Your task to perform on an android device: open the mobile data screen to see how much data has been used Image 0: 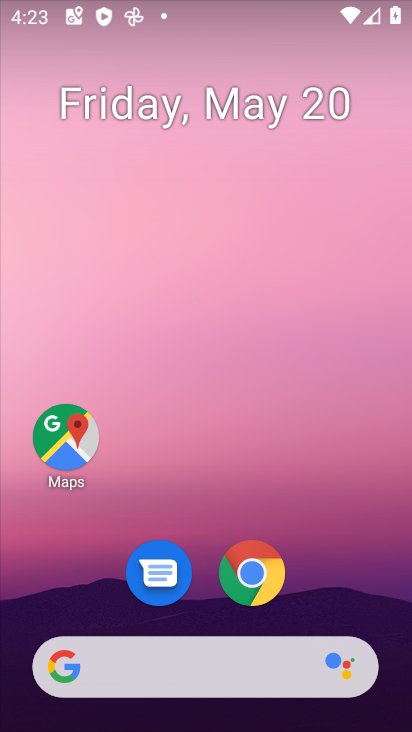
Step 0: drag from (368, 626) to (367, 134)
Your task to perform on an android device: open the mobile data screen to see how much data has been used Image 1: 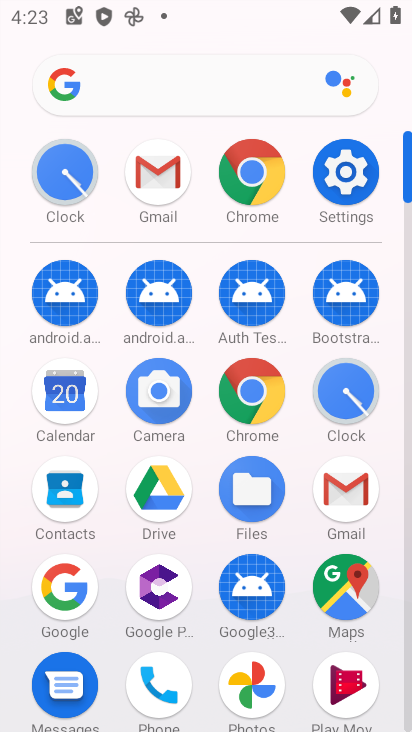
Step 1: click (408, 688)
Your task to perform on an android device: open the mobile data screen to see how much data has been used Image 2: 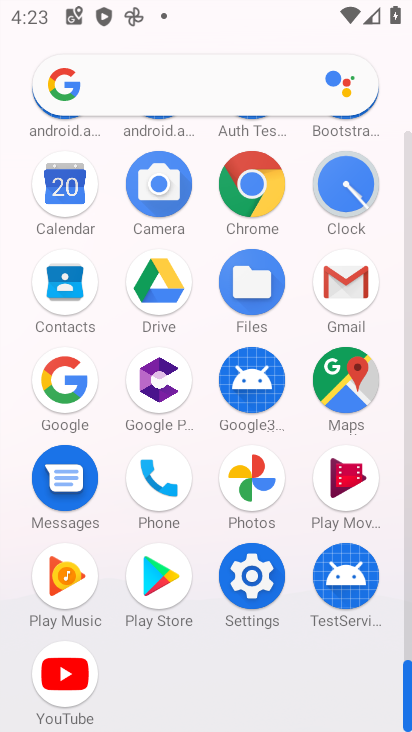
Step 2: click (247, 573)
Your task to perform on an android device: open the mobile data screen to see how much data has been used Image 3: 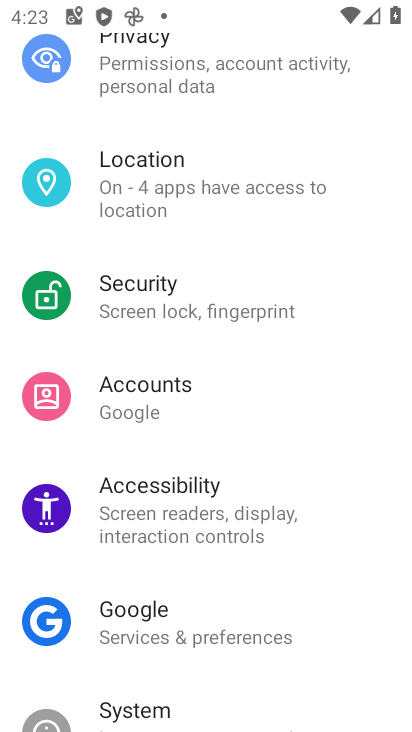
Step 3: drag from (344, 151) to (292, 511)
Your task to perform on an android device: open the mobile data screen to see how much data has been used Image 4: 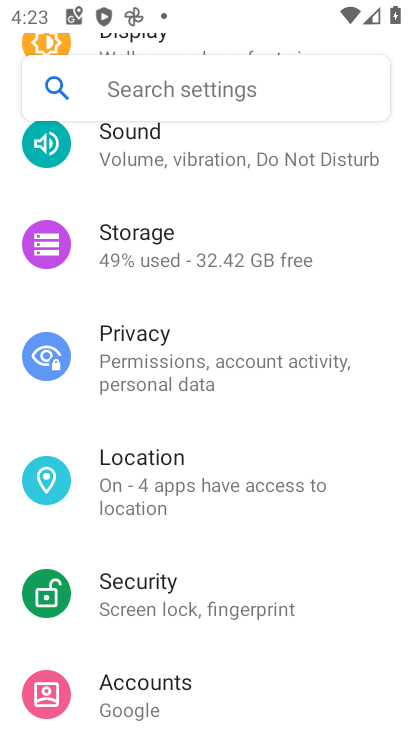
Step 4: drag from (344, 231) to (339, 704)
Your task to perform on an android device: open the mobile data screen to see how much data has been used Image 5: 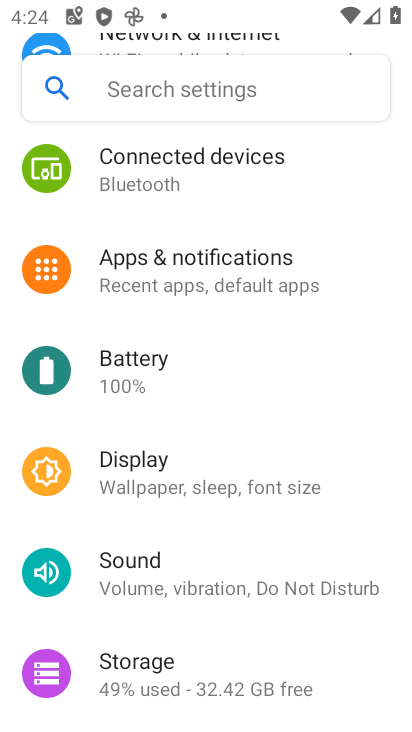
Step 5: drag from (330, 279) to (312, 541)
Your task to perform on an android device: open the mobile data screen to see how much data has been used Image 6: 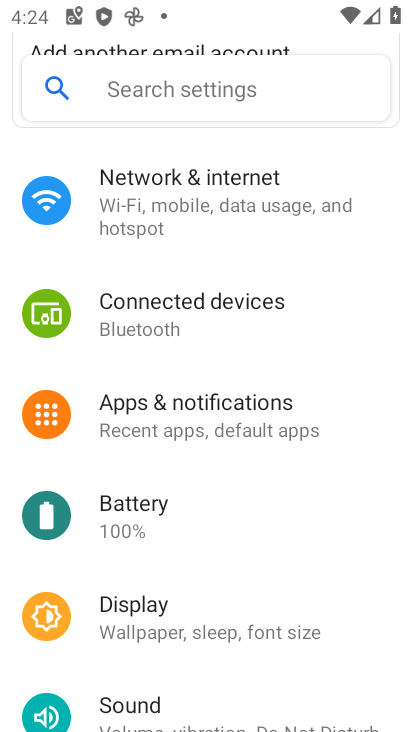
Step 6: click (148, 190)
Your task to perform on an android device: open the mobile data screen to see how much data has been used Image 7: 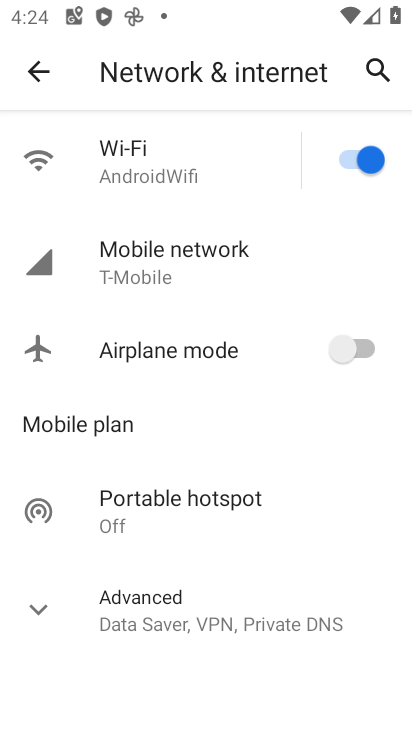
Step 7: click (150, 274)
Your task to perform on an android device: open the mobile data screen to see how much data has been used Image 8: 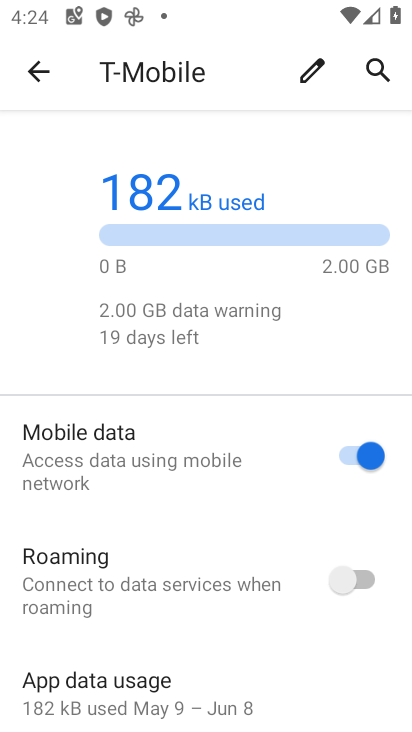
Step 8: task complete